Your task to perform on an android device: Toggle the flashlight Image 0: 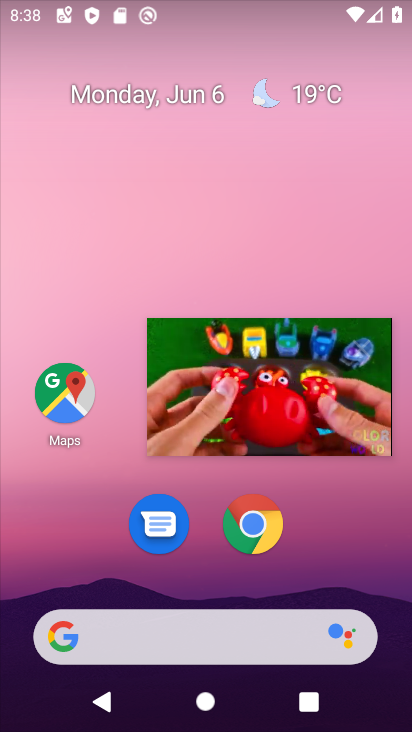
Step 0: drag from (294, 370) to (275, 728)
Your task to perform on an android device: Toggle the flashlight Image 1: 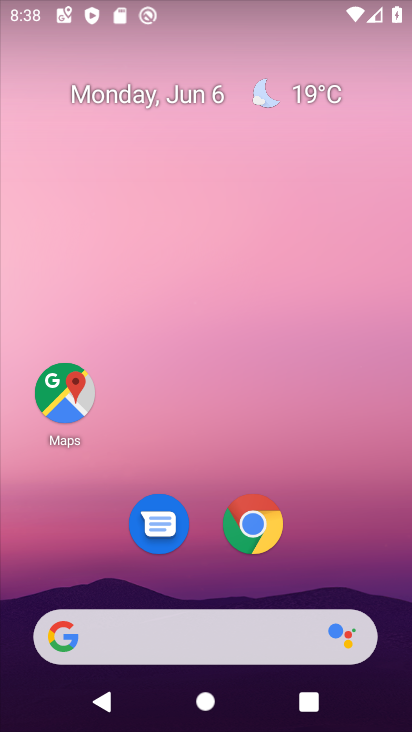
Step 1: drag from (231, 429) to (227, 1)
Your task to perform on an android device: Toggle the flashlight Image 2: 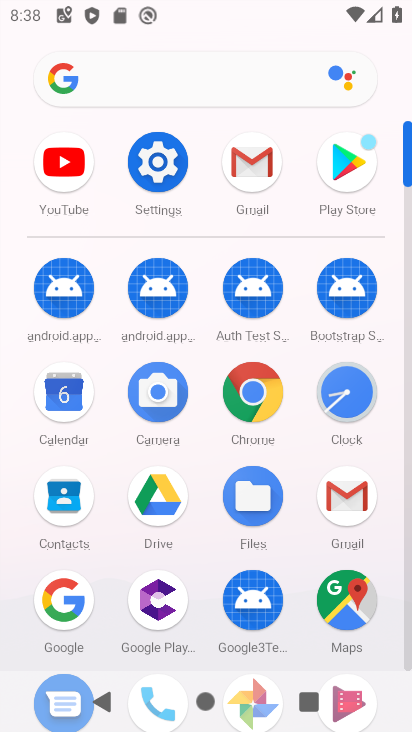
Step 2: click (167, 166)
Your task to perform on an android device: Toggle the flashlight Image 3: 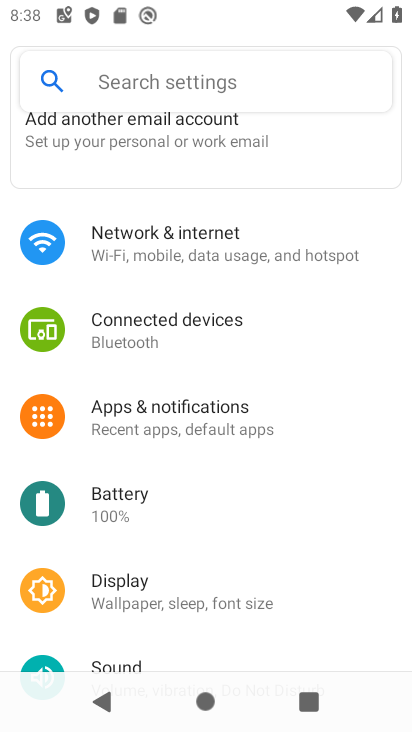
Step 3: click (315, 82)
Your task to perform on an android device: Toggle the flashlight Image 4: 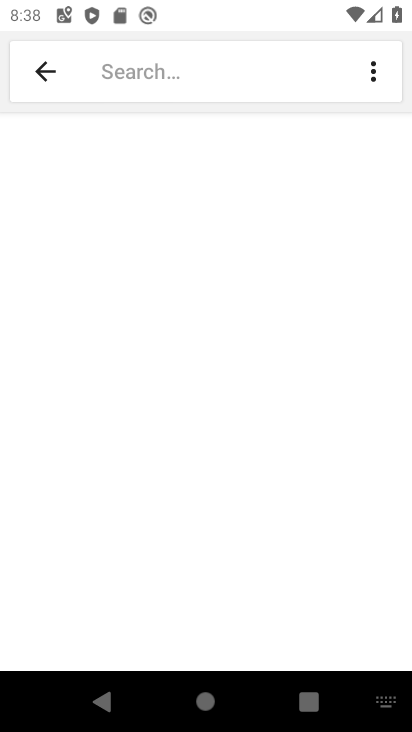
Step 4: type "Flashlight"
Your task to perform on an android device: Toggle the flashlight Image 5: 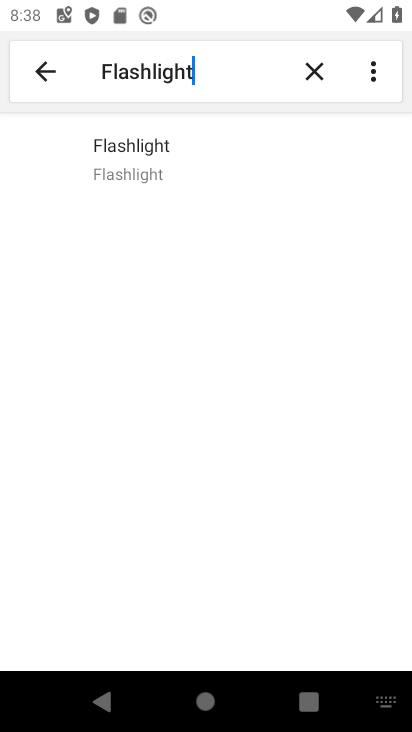
Step 5: click (145, 164)
Your task to perform on an android device: Toggle the flashlight Image 6: 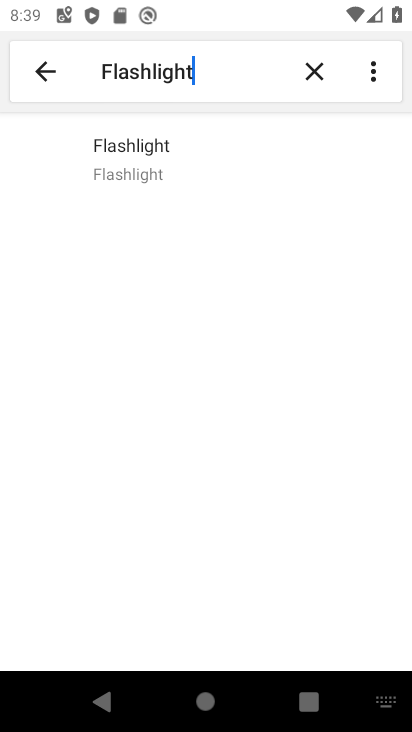
Step 6: task complete